Your task to perform on an android device: Go to privacy settings Image 0: 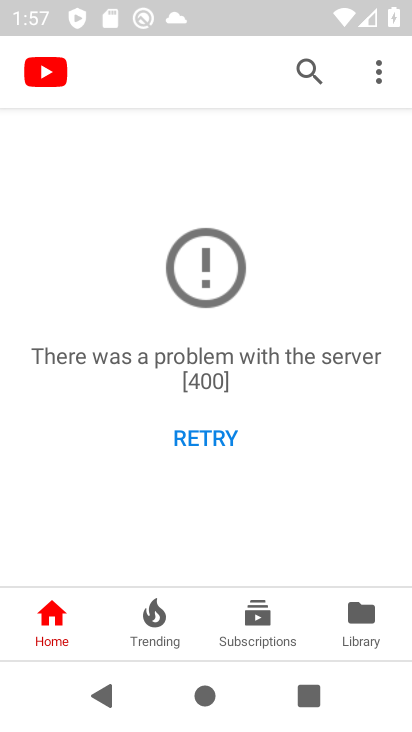
Step 0: press home button
Your task to perform on an android device: Go to privacy settings Image 1: 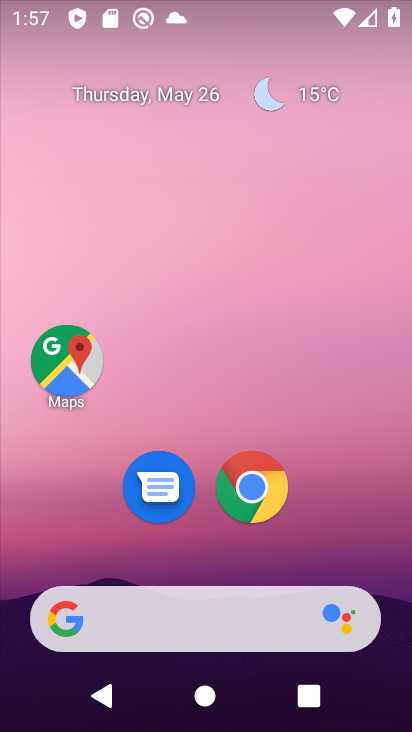
Step 1: drag from (207, 552) to (213, 159)
Your task to perform on an android device: Go to privacy settings Image 2: 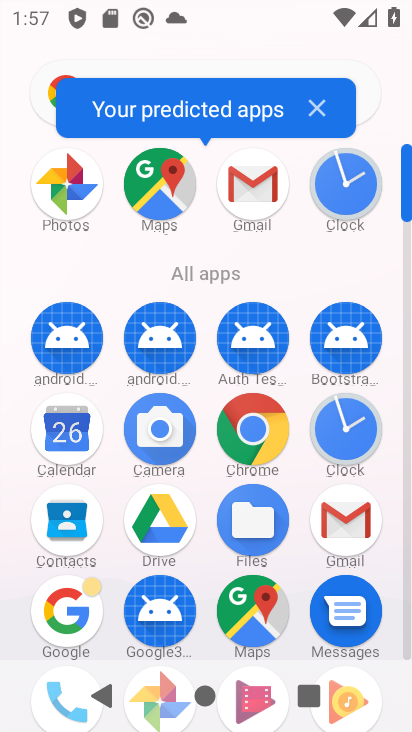
Step 2: drag from (198, 550) to (234, 227)
Your task to perform on an android device: Go to privacy settings Image 3: 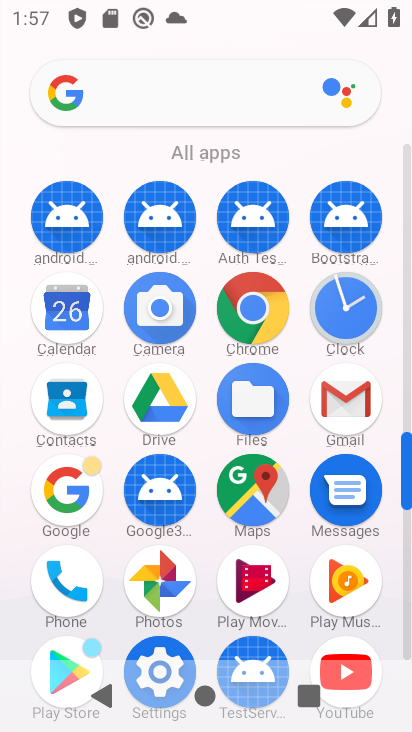
Step 3: drag from (166, 556) to (233, 273)
Your task to perform on an android device: Go to privacy settings Image 4: 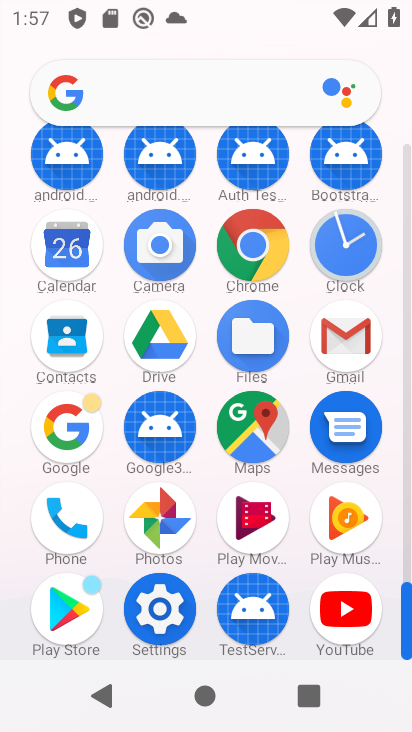
Step 4: click (168, 594)
Your task to perform on an android device: Go to privacy settings Image 5: 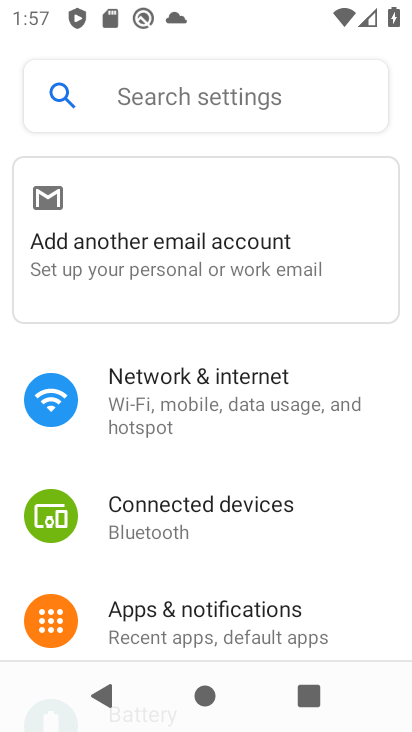
Step 5: drag from (225, 601) to (267, 226)
Your task to perform on an android device: Go to privacy settings Image 6: 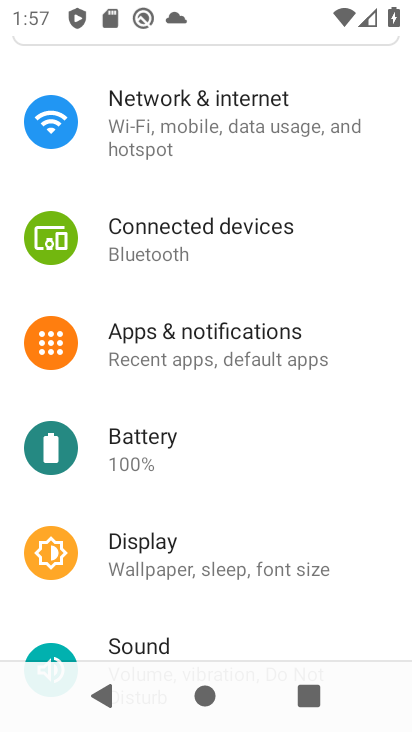
Step 6: drag from (204, 591) to (262, 276)
Your task to perform on an android device: Go to privacy settings Image 7: 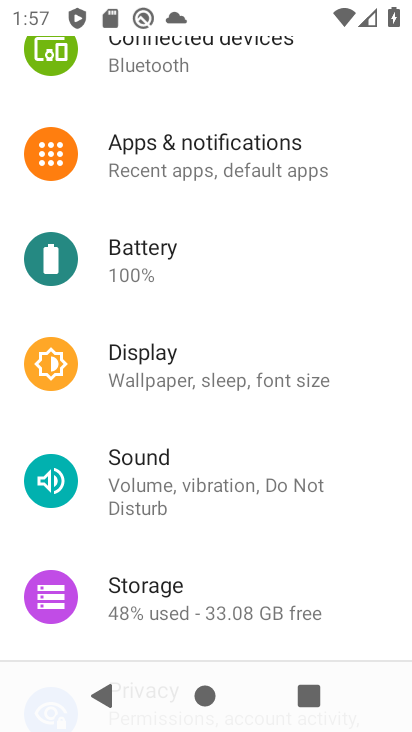
Step 7: drag from (230, 558) to (312, 213)
Your task to perform on an android device: Go to privacy settings Image 8: 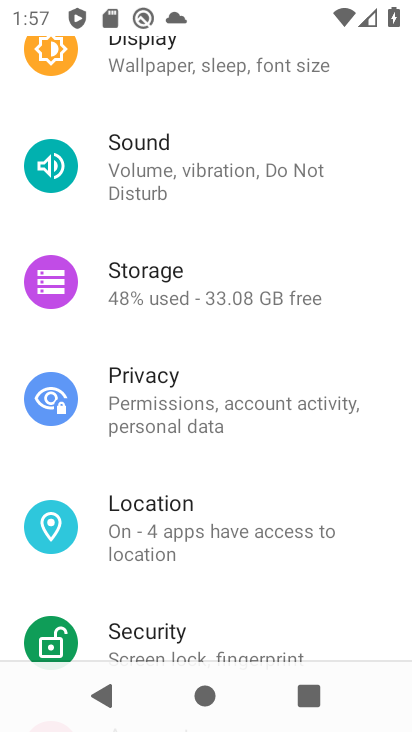
Step 8: click (235, 378)
Your task to perform on an android device: Go to privacy settings Image 9: 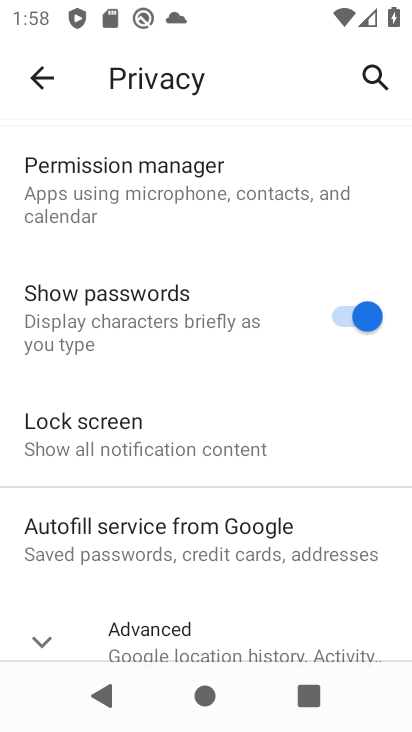
Step 9: task complete